Your task to perform on an android device: Go to CNN.com Image 0: 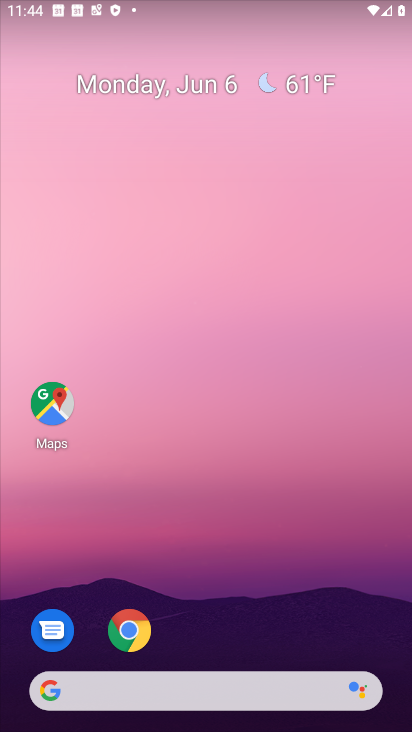
Step 0: drag from (381, 568) to (312, 211)
Your task to perform on an android device: Go to CNN.com Image 1: 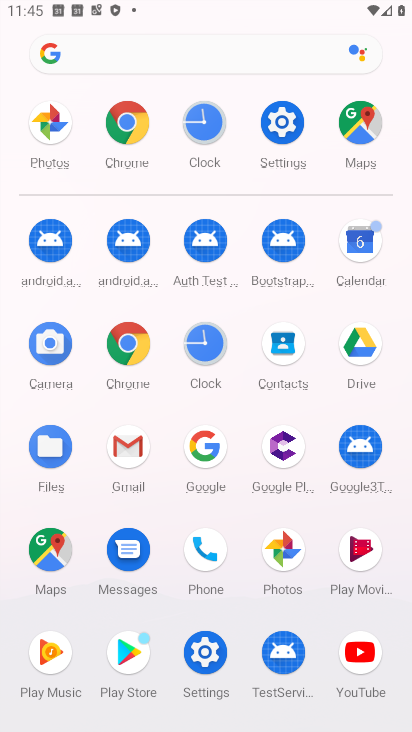
Step 1: click (139, 336)
Your task to perform on an android device: Go to CNN.com Image 2: 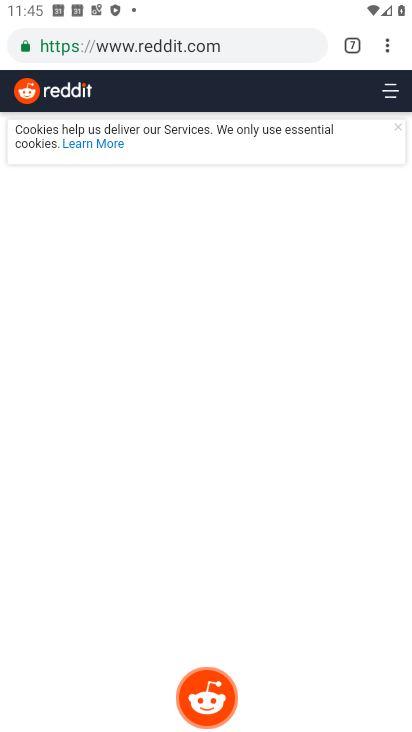
Step 2: click (347, 52)
Your task to perform on an android device: Go to CNN.com Image 3: 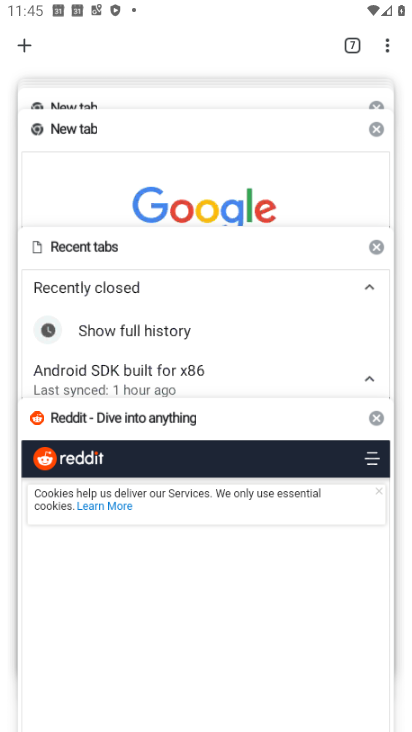
Step 3: click (23, 46)
Your task to perform on an android device: Go to CNN.com Image 4: 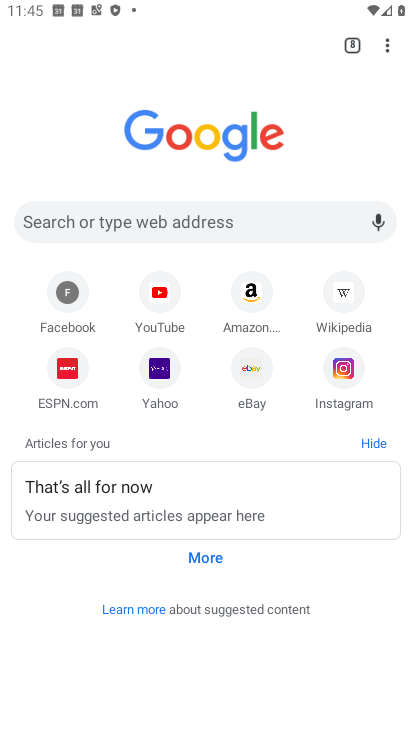
Step 4: click (182, 225)
Your task to perform on an android device: Go to CNN.com Image 5: 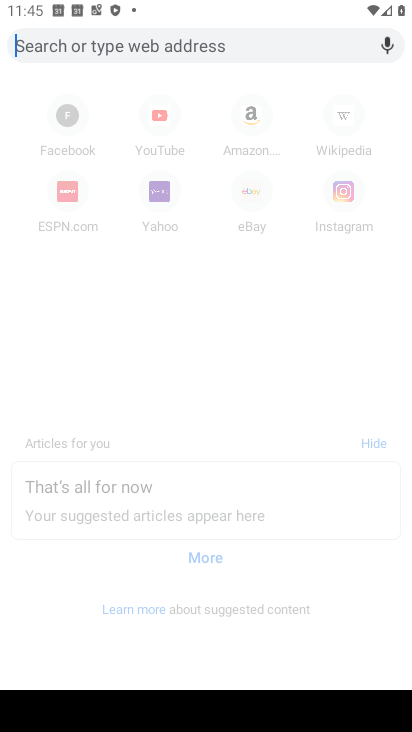
Step 5: type "cnn.com"
Your task to perform on an android device: Go to CNN.com Image 6: 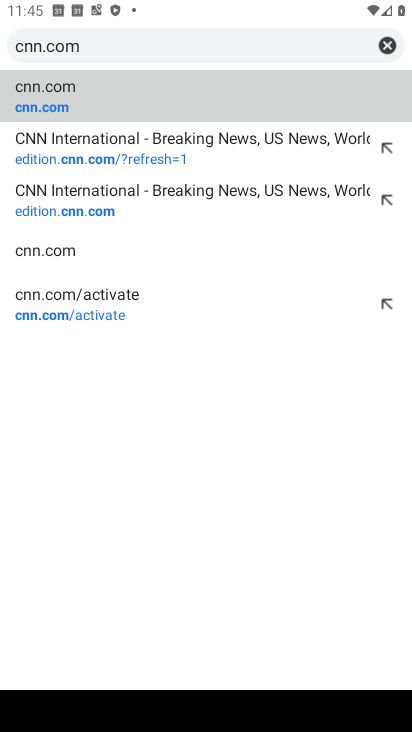
Step 6: click (76, 105)
Your task to perform on an android device: Go to CNN.com Image 7: 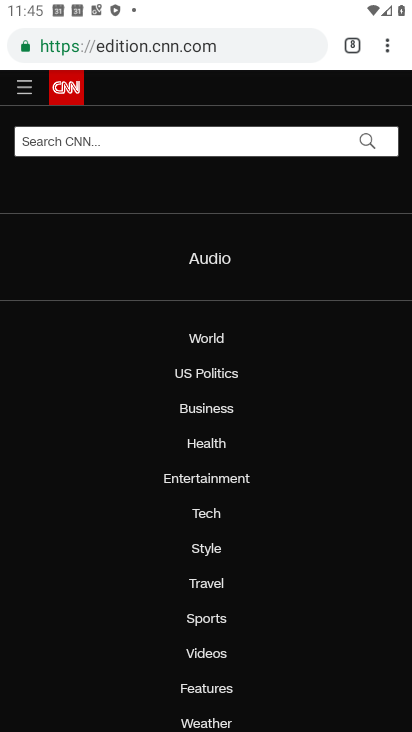
Step 7: task complete